Your task to perform on an android device: find snoozed emails in the gmail app Image 0: 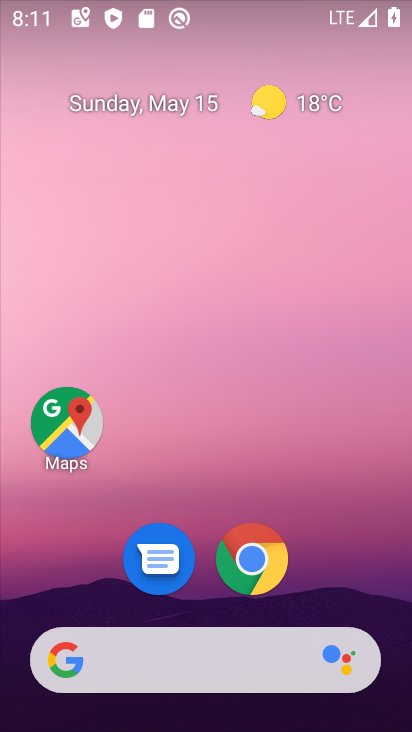
Step 0: drag from (307, 495) to (222, 170)
Your task to perform on an android device: find snoozed emails in the gmail app Image 1: 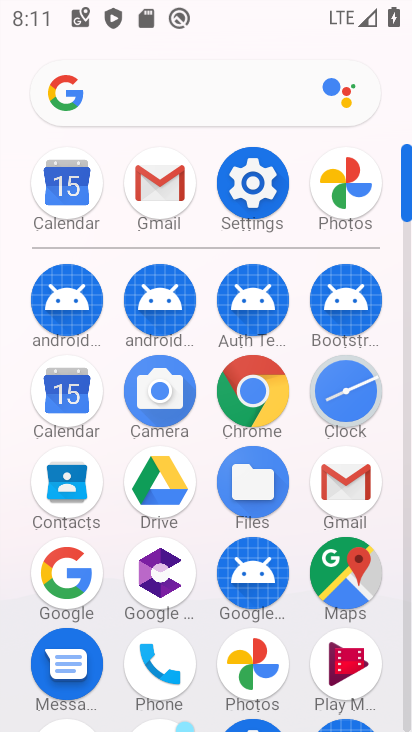
Step 1: click (337, 482)
Your task to perform on an android device: find snoozed emails in the gmail app Image 2: 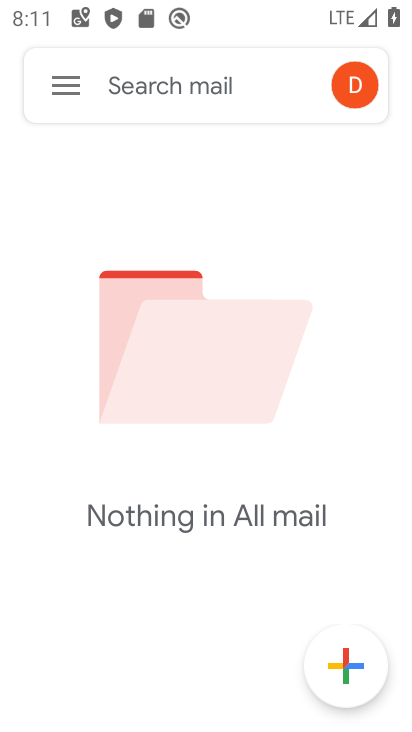
Step 2: click (60, 92)
Your task to perform on an android device: find snoozed emails in the gmail app Image 3: 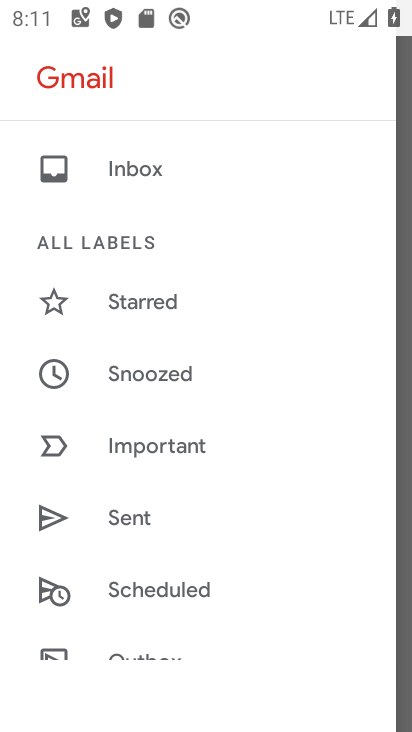
Step 3: click (150, 377)
Your task to perform on an android device: find snoozed emails in the gmail app Image 4: 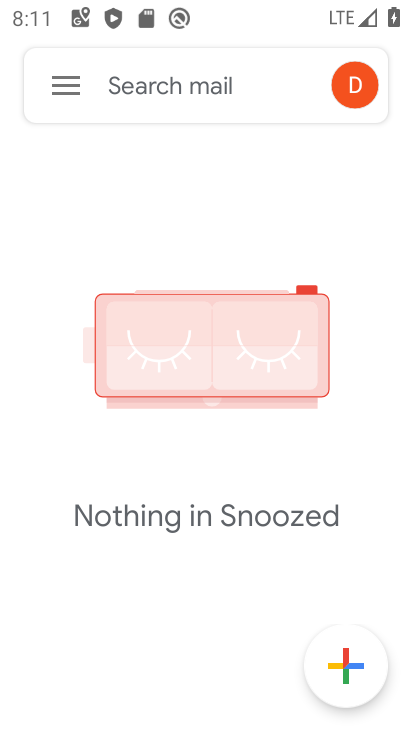
Step 4: task complete